Your task to perform on an android device: choose inbox layout in the gmail app Image 0: 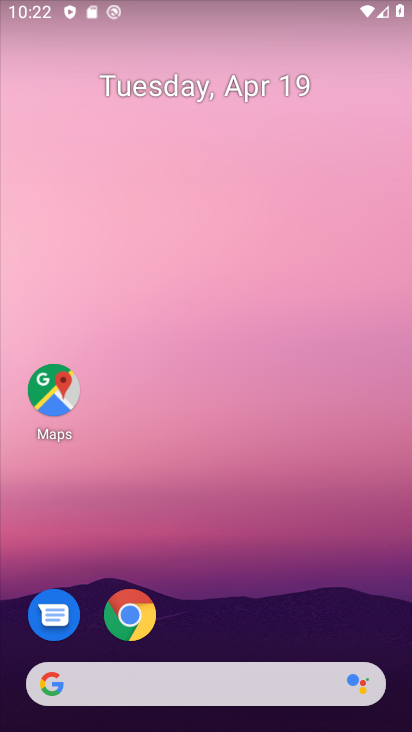
Step 0: drag from (197, 507) to (348, 40)
Your task to perform on an android device: choose inbox layout in the gmail app Image 1: 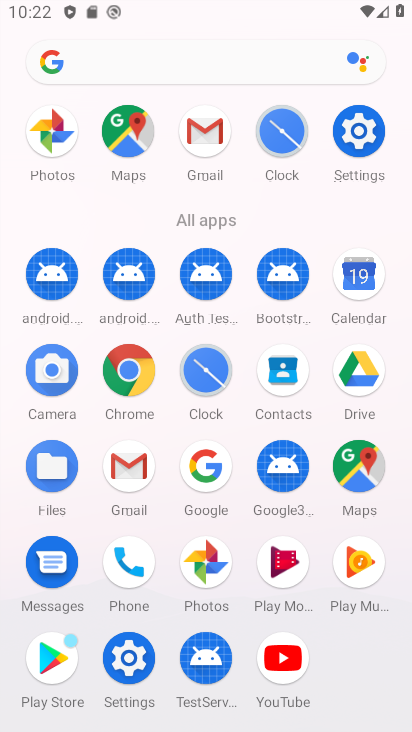
Step 1: click (207, 136)
Your task to perform on an android device: choose inbox layout in the gmail app Image 2: 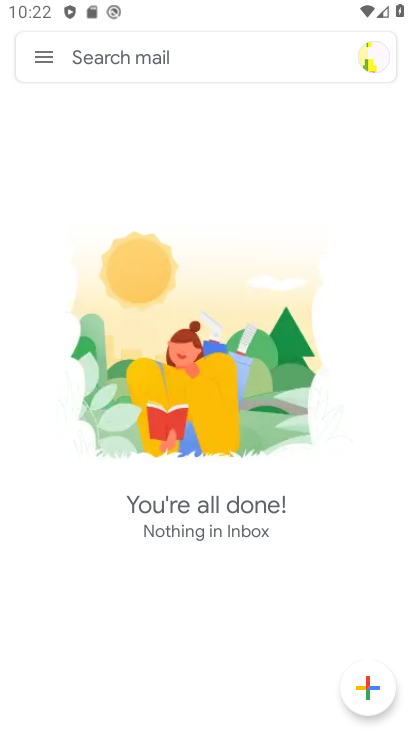
Step 2: click (42, 55)
Your task to perform on an android device: choose inbox layout in the gmail app Image 3: 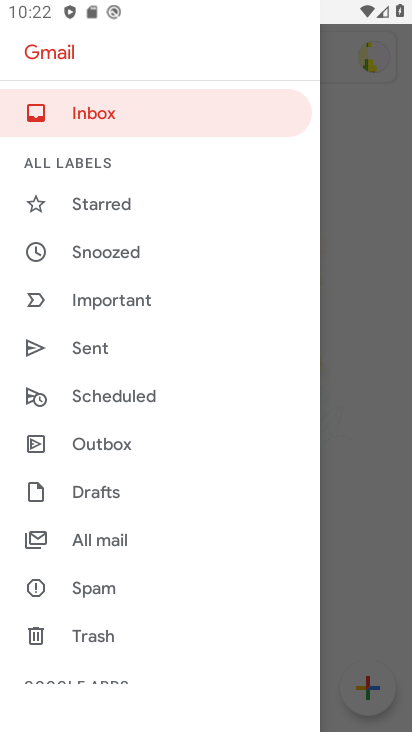
Step 3: drag from (133, 629) to (234, 233)
Your task to perform on an android device: choose inbox layout in the gmail app Image 4: 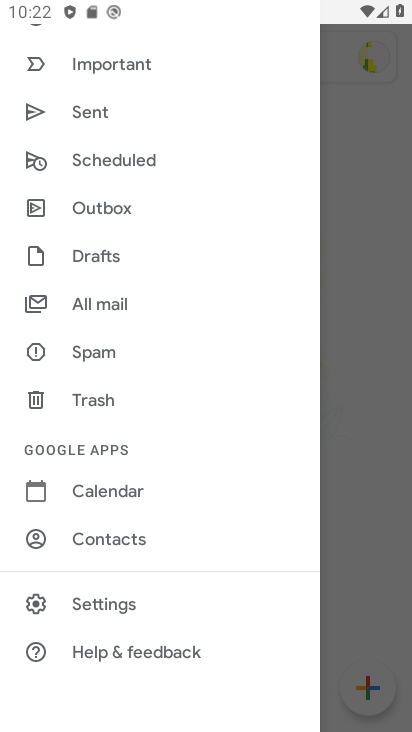
Step 4: click (114, 600)
Your task to perform on an android device: choose inbox layout in the gmail app Image 5: 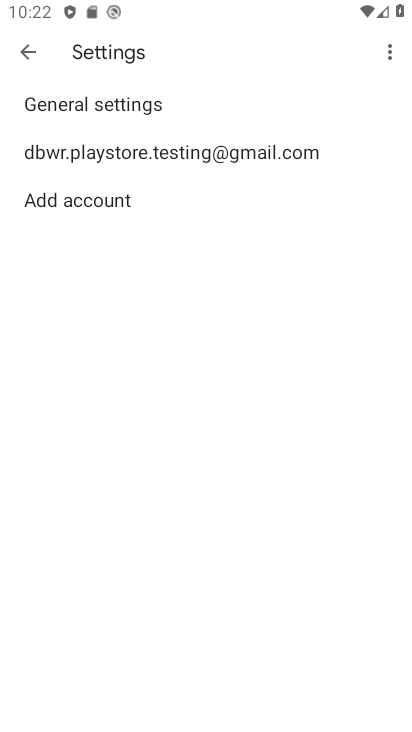
Step 5: click (244, 152)
Your task to perform on an android device: choose inbox layout in the gmail app Image 6: 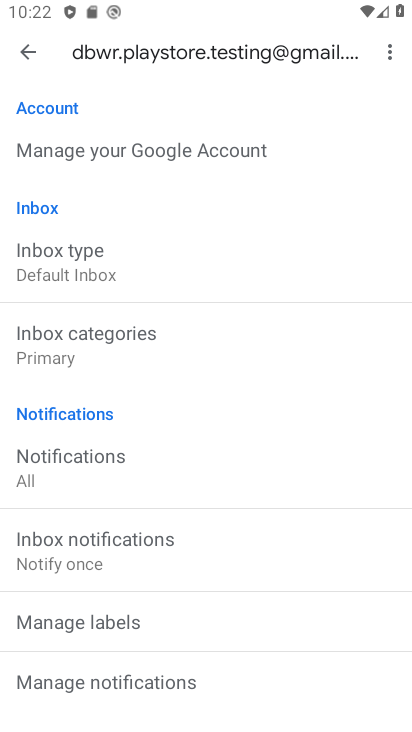
Step 6: drag from (130, 489) to (199, 576)
Your task to perform on an android device: choose inbox layout in the gmail app Image 7: 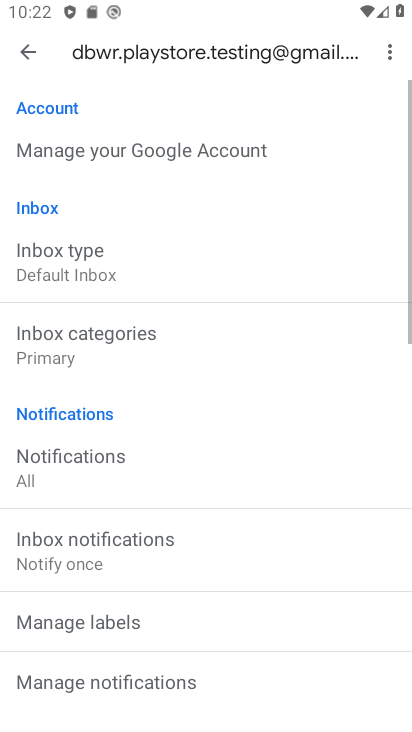
Step 7: click (148, 285)
Your task to perform on an android device: choose inbox layout in the gmail app Image 8: 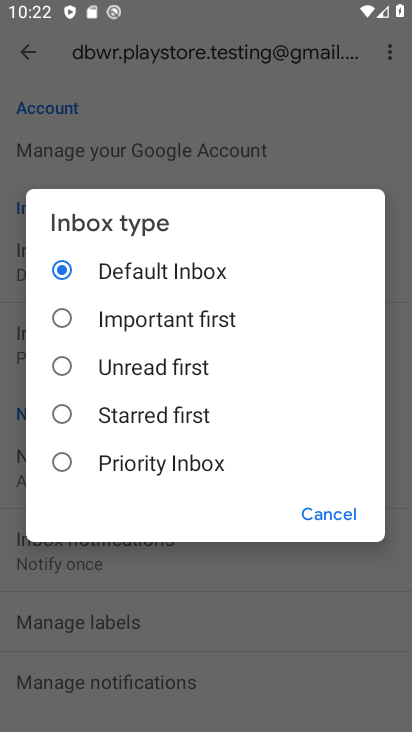
Step 8: click (152, 322)
Your task to perform on an android device: choose inbox layout in the gmail app Image 9: 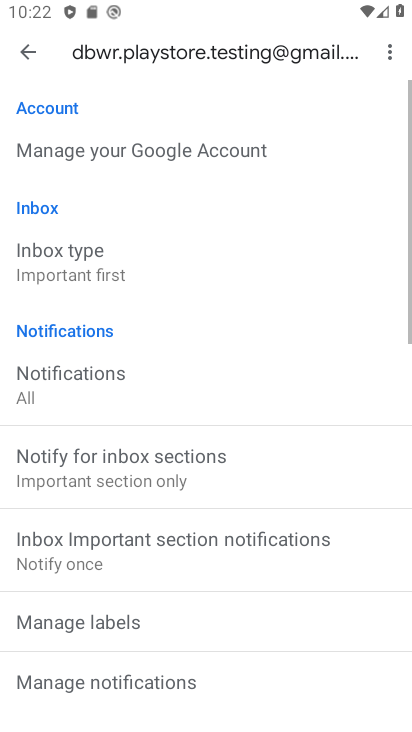
Step 9: task complete